Your task to perform on an android device: all mails in gmail Image 0: 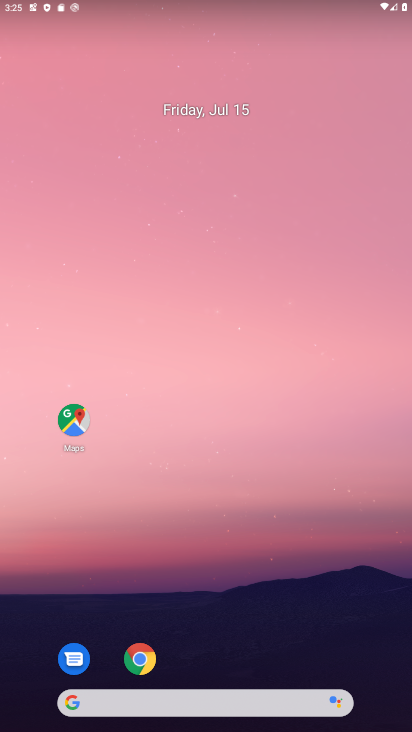
Step 0: drag from (173, 693) to (249, 192)
Your task to perform on an android device: all mails in gmail Image 1: 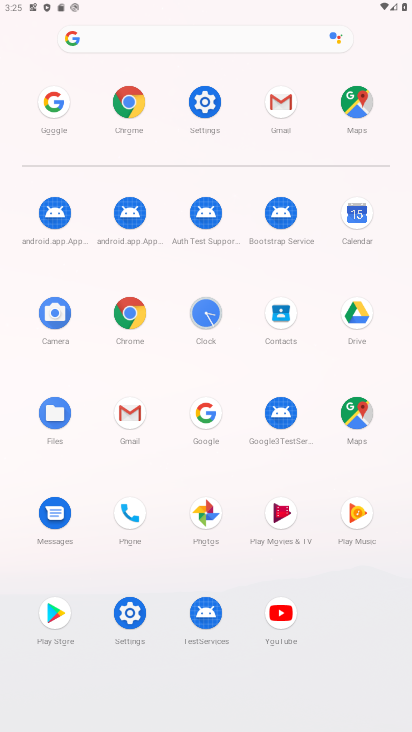
Step 1: click (268, 98)
Your task to perform on an android device: all mails in gmail Image 2: 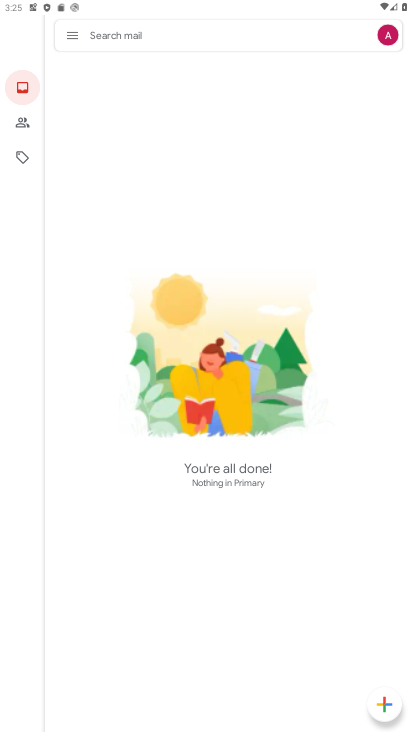
Step 2: click (74, 31)
Your task to perform on an android device: all mails in gmail Image 3: 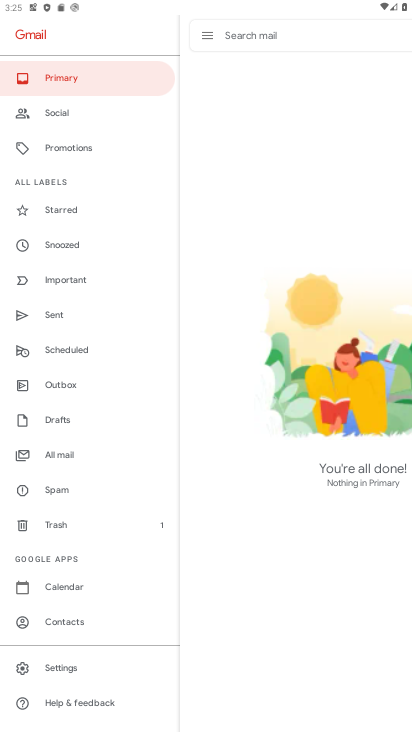
Step 3: click (73, 447)
Your task to perform on an android device: all mails in gmail Image 4: 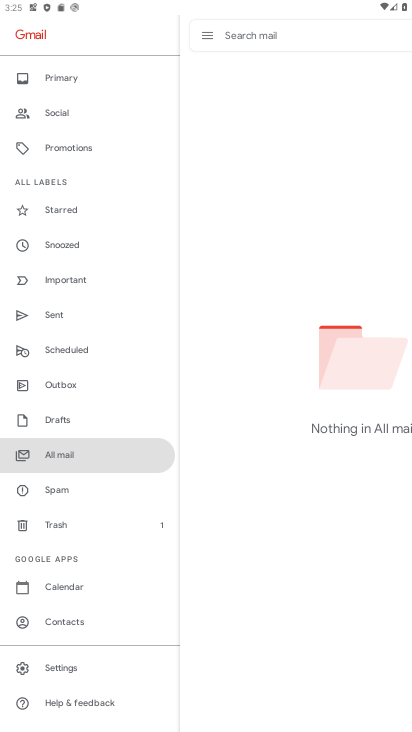
Step 4: click (78, 451)
Your task to perform on an android device: all mails in gmail Image 5: 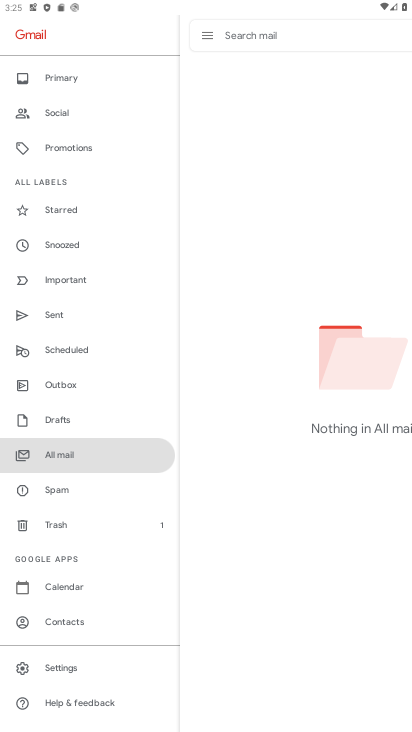
Step 5: task complete